Your task to perform on an android device: Open Chrome and go to settings Image 0: 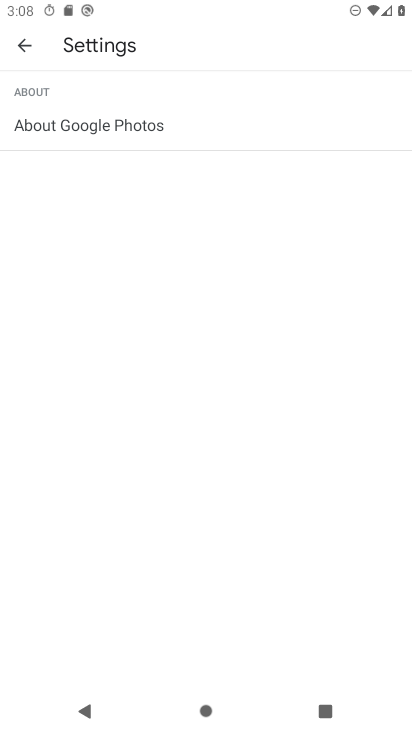
Step 0: press home button
Your task to perform on an android device: Open Chrome and go to settings Image 1: 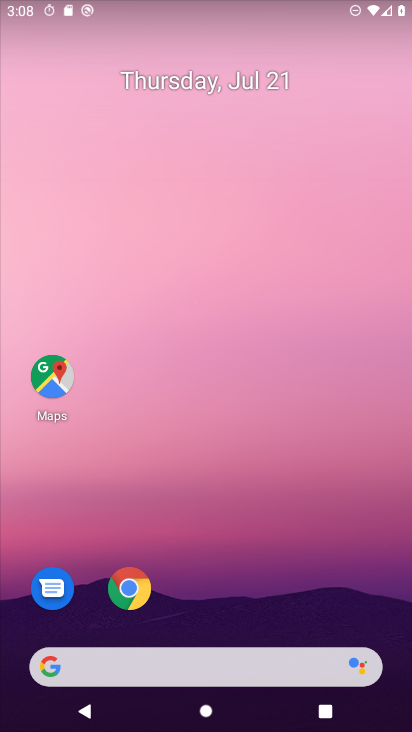
Step 1: drag from (217, 657) to (268, 87)
Your task to perform on an android device: Open Chrome and go to settings Image 2: 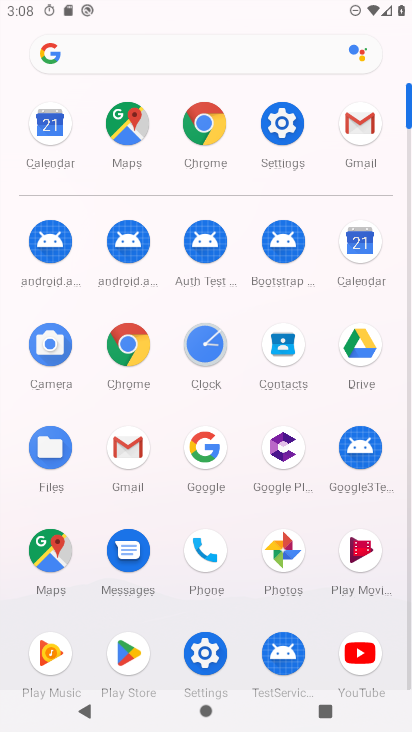
Step 2: click (214, 134)
Your task to perform on an android device: Open Chrome and go to settings Image 3: 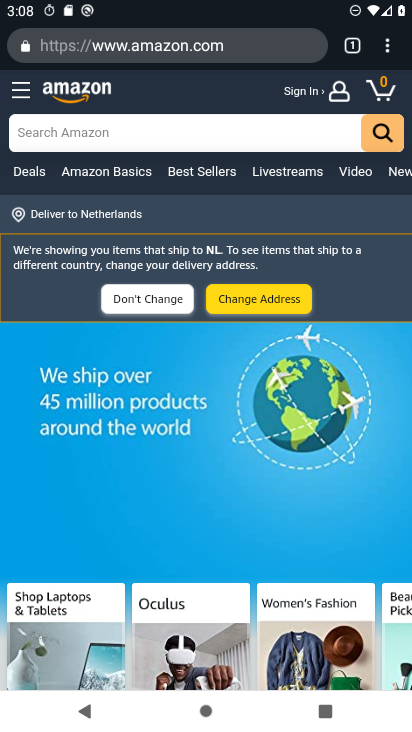
Step 3: click (387, 52)
Your task to perform on an android device: Open Chrome and go to settings Image 4: 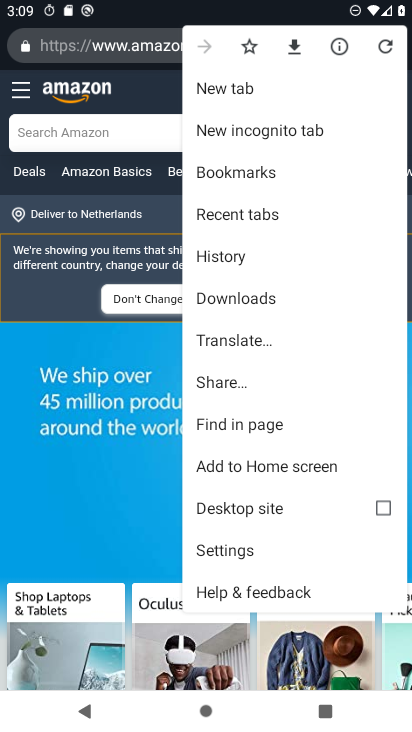
Step 4: click (240, 549)
Your task to perform on an android device: Open Chrome and go to settings Image 5: 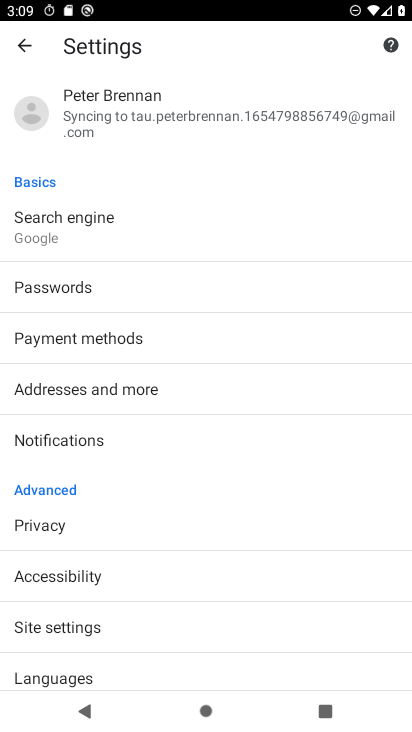
Step 5: task complete